Your task to perform on an android device: open a bookmark in the chrome app Image 0: 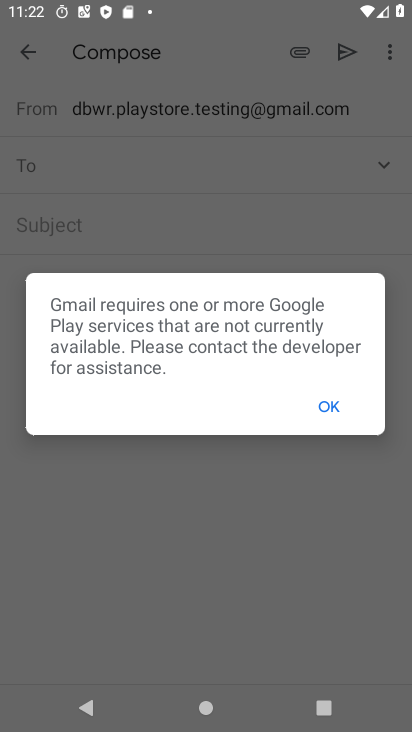
Step 0: click (336, 412)
Your task to perform on an android device: open a bookmark in the chrome app Image 1: 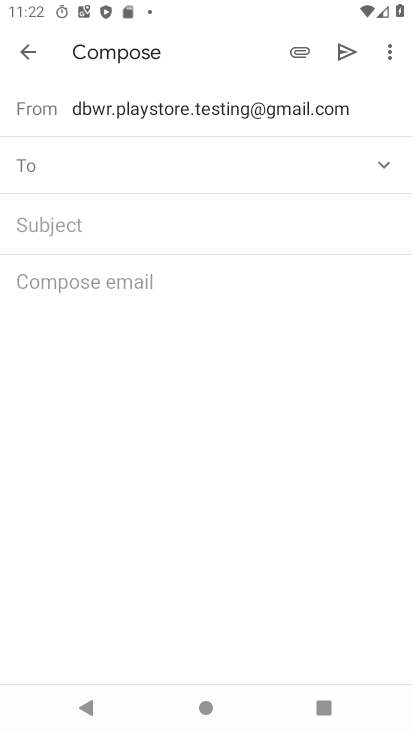
Step 1: press home button
Your task to perform on an android device: open a bookmark in the chrome app Image 2: 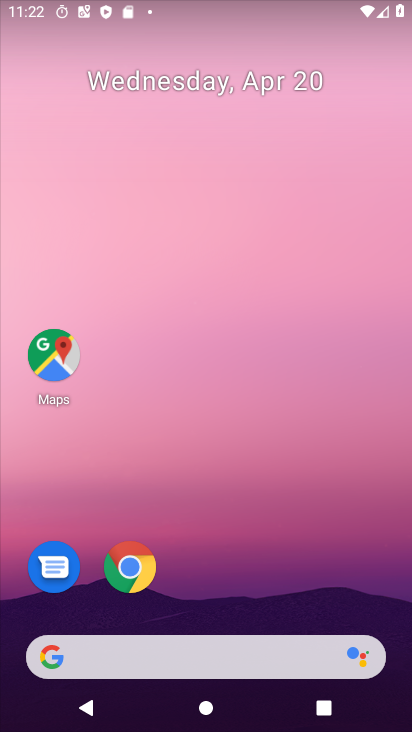
Step 2: click (290, 586)
Your task to perform on an android device: open a bookmark in the chrome app Image 3: 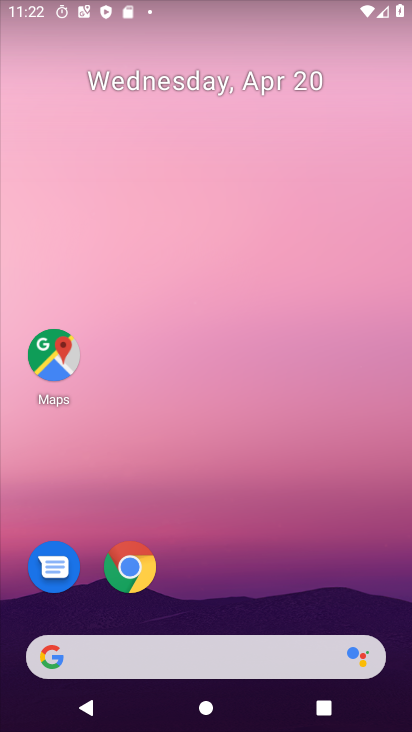
Step 3: click (135, 603)
Your task to perform on an android device: open a bookmark in the chrome app Image 4: 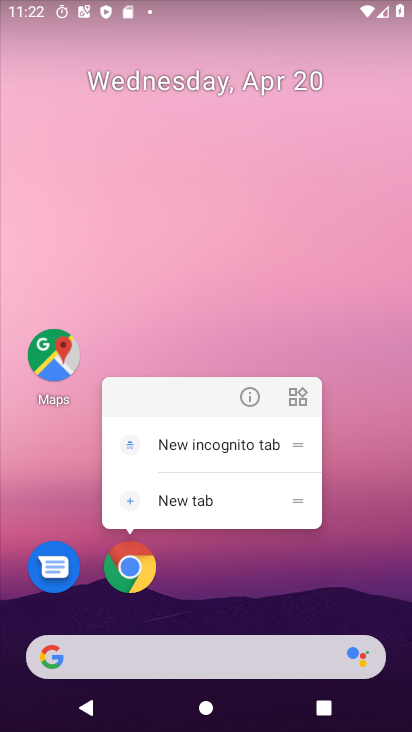
Step 4: click (245, 402)
Your task to perform on an android device: open a bookmark in the chrome app Image 5: 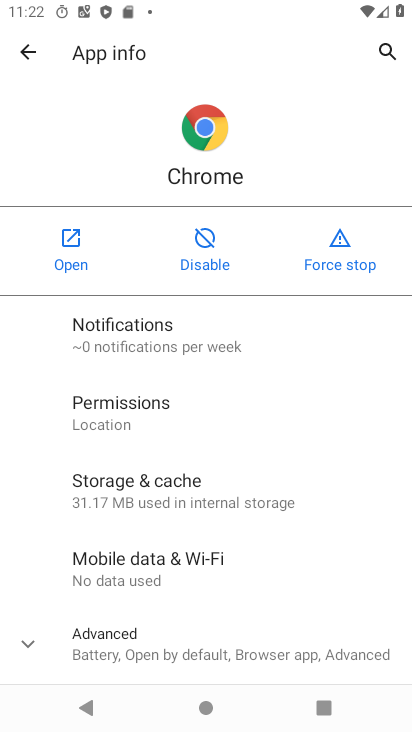
Step 5: click (68, 264)
Your task to perform on an android device: open a bookmark in the chrome app Image 6: 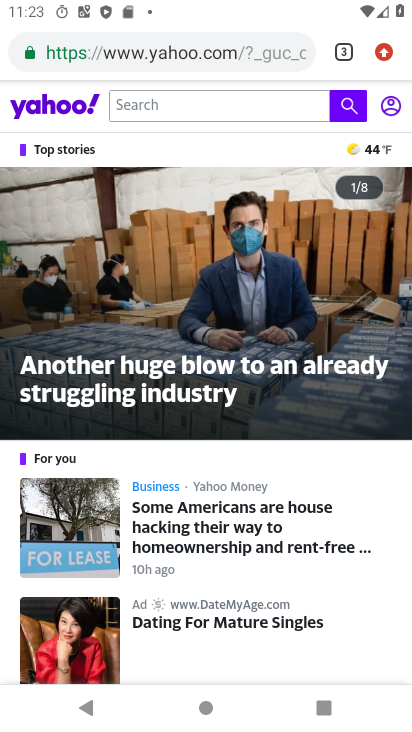
Step 6: click (380, 58)
Your task to perform on an android device: open a bookmark in the chrome app Image 7: 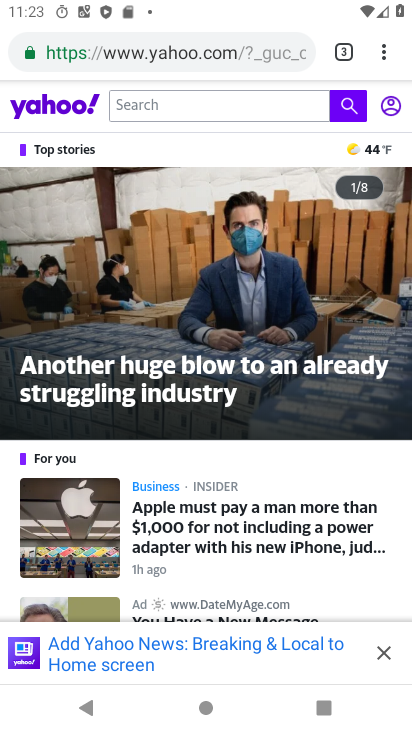
Step 7: click (383, 58)
Your task to perform on an android device: open a bookmark in the chrome app Image 8: 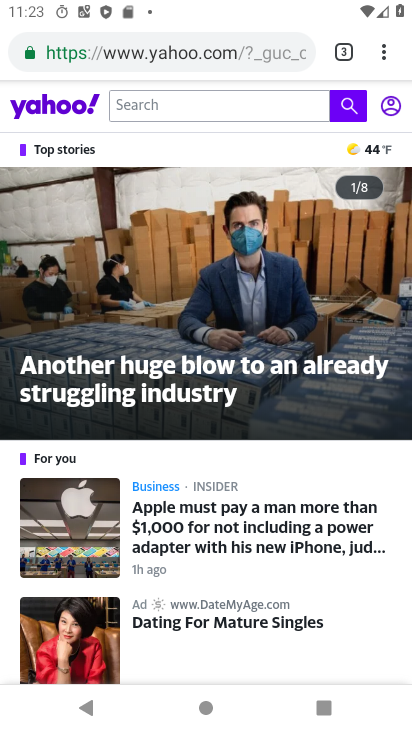
Step 8: click (388, 54)
Your task to perform on an android device: open a bookmark in the chrome app Image 9: 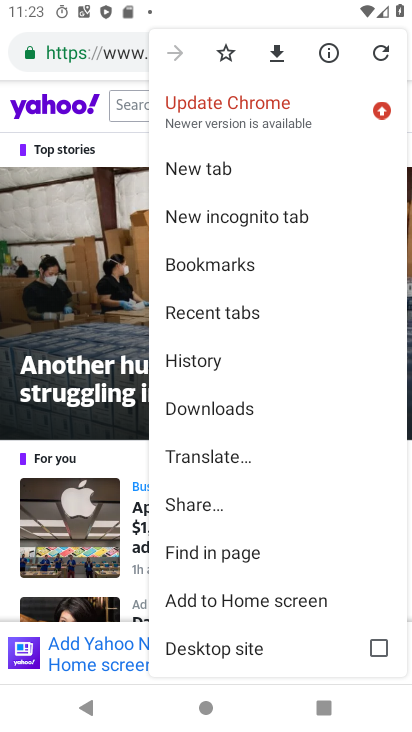
Step 9: click (254, 265)
Your task to perform on an android device: open a bookmark in the chrome app Image 10: 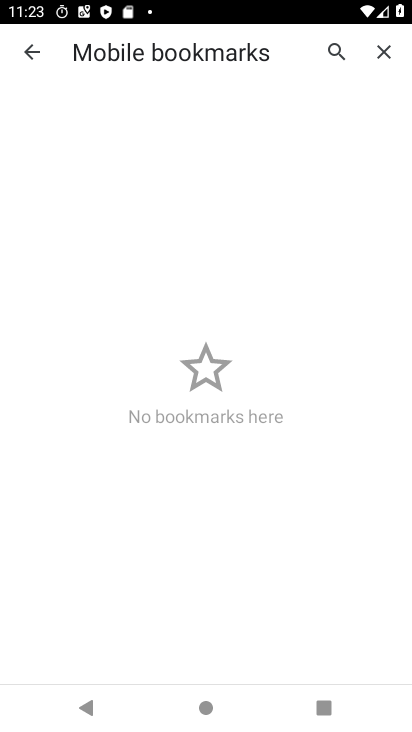
Step 10: task complete